Your task to perform on an android device: add a contact in the contacts app Image 0: 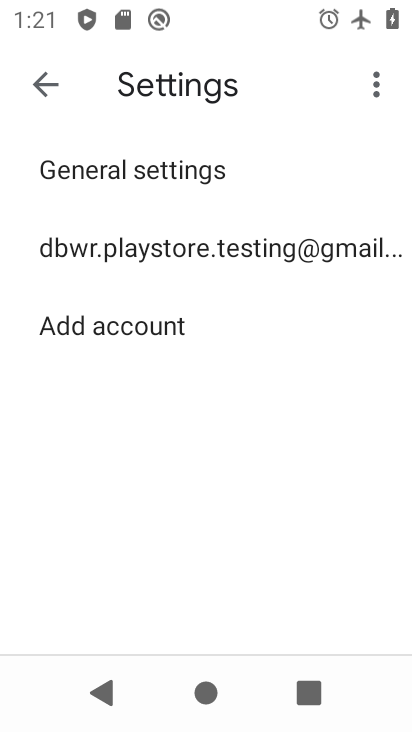
Step 0: press home button
Your task to perform on an android device: add a contact in the contacts app Image 1: 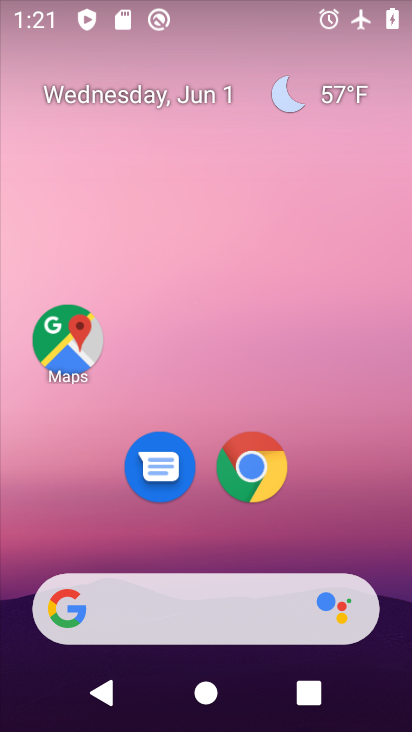
Step 1: drag from (383, 552) to (381, 132)
Your task to perform on an android device: add a contact in the contacts app Image 2: 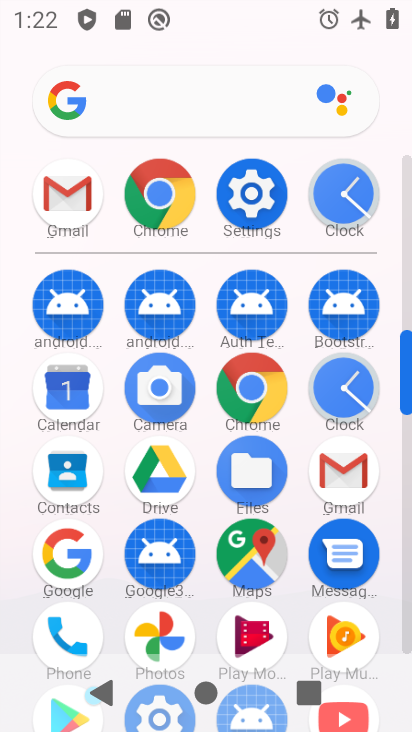
Step 2: click (74, 492)
Your task to perform on an android device: add a contact in the contacts app Image 3: 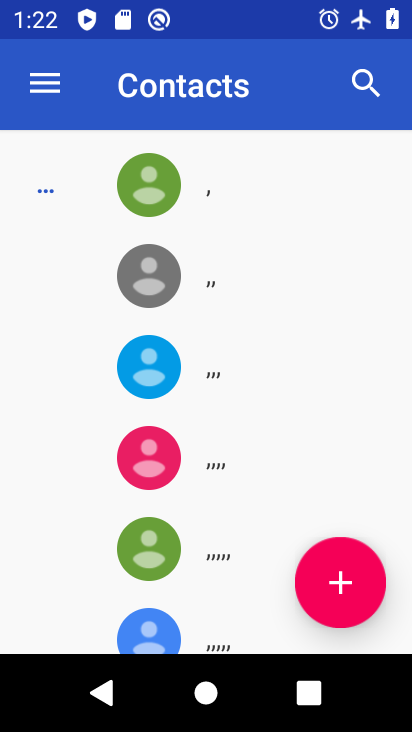
Step 3: click (352, 569)
Your task to perform on an android device: add a contact in the contacts app Image 4: 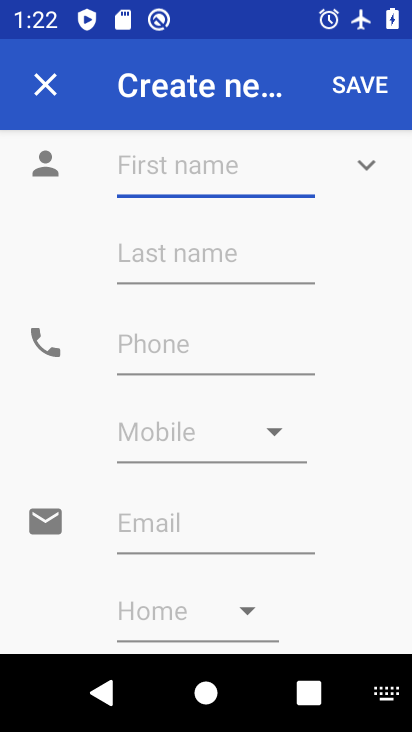
Step 4: click (187, 180)
Your task to perform on an android device: add a contact in the contacts app Image 5: 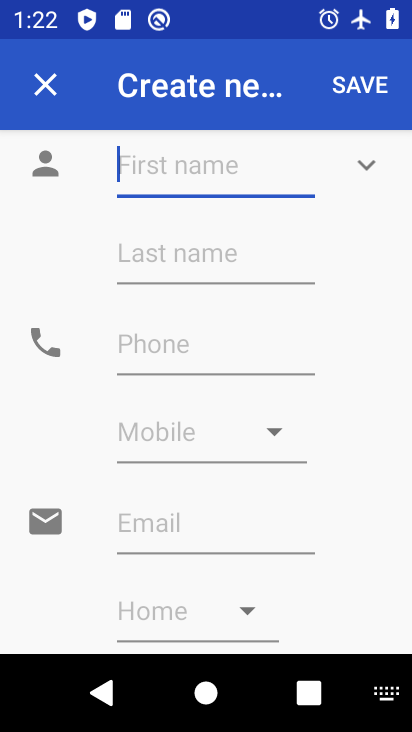
Step 5: type "my luv"
Your task to perform on an android device: add a contact in the contacts app Image 6: 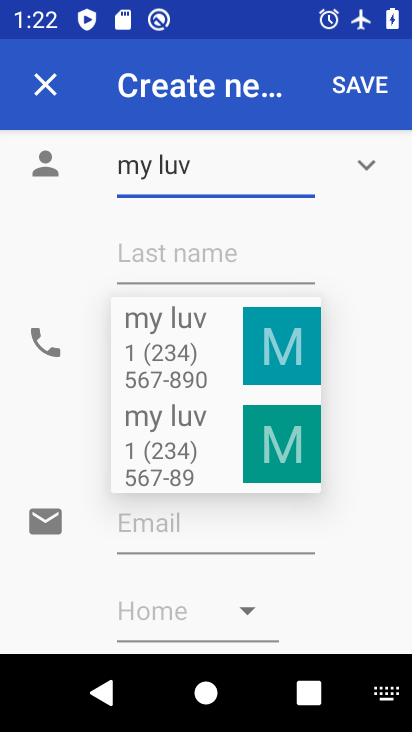
Step 6: click (351, 339)
Your task to perform on an android device: add a contact in the contacts app Image 7: 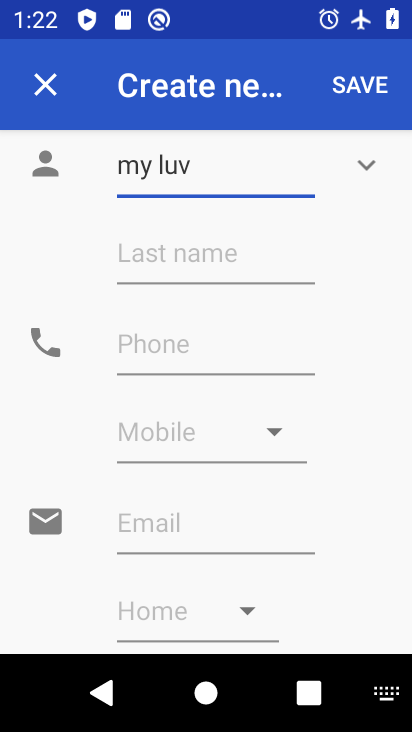
Step 7: click (176, 362)
Your task to perform on an android device: add a contact in the contacts app Image 8: 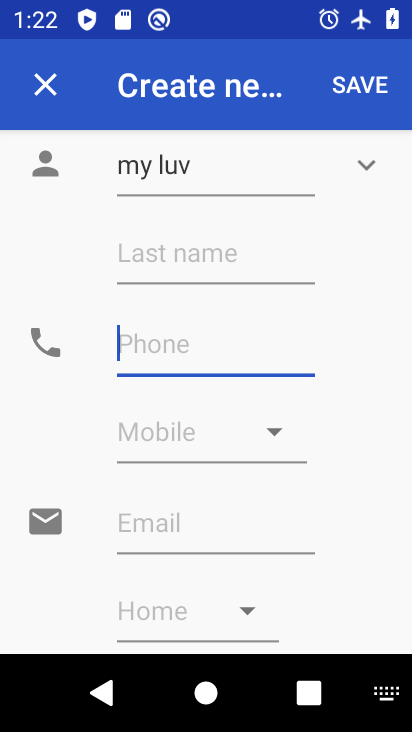
Step 8: type "123456789"
Your task to perform on an android device: add a contact in the contacts app Image 9: 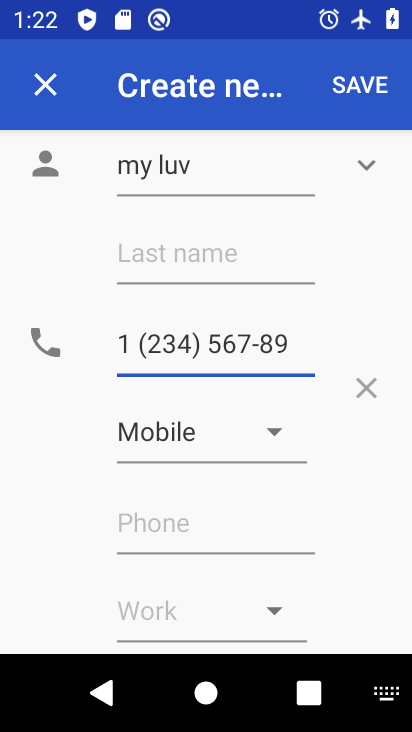
Step 9: click (366, 94)
Your task to perform on an android device: add a contact in the contacts app Image 10: 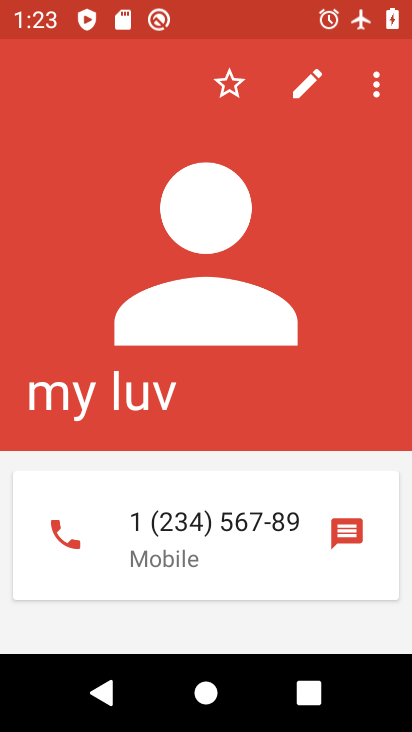
Step 10: task complete